Your task to perform on an android device: open chrome and create a bookmark for the current page Image 0: 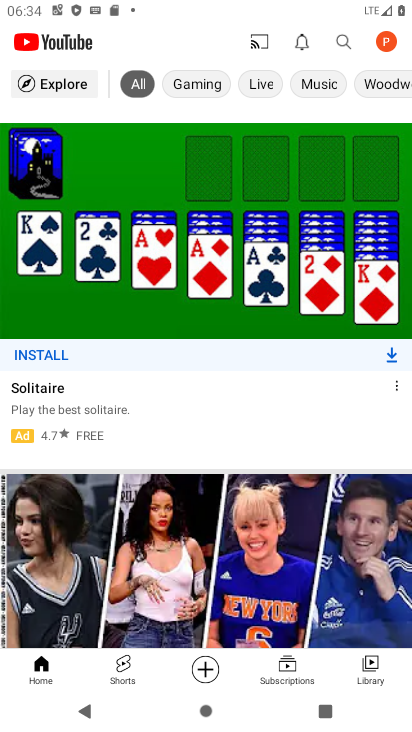
Step 0: press home button
Your task to perform on an android device: open chrome and create a bookmark for the current page Image 1: 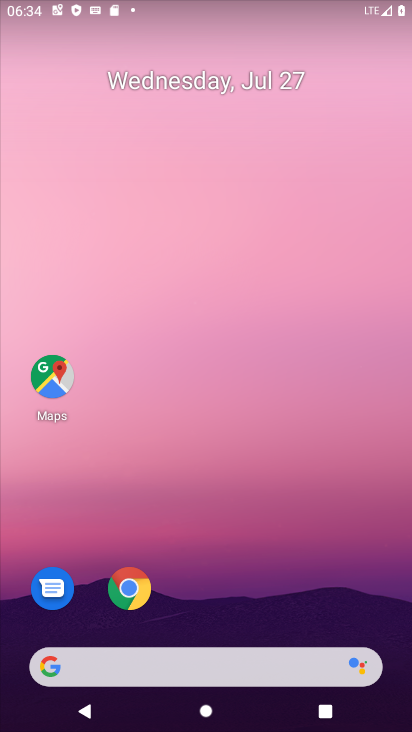
Step 1: drag from (209, 651) to (215, 2)
Your task to perform on an android device: open chrome and create a bookmark for the current page Image 2: 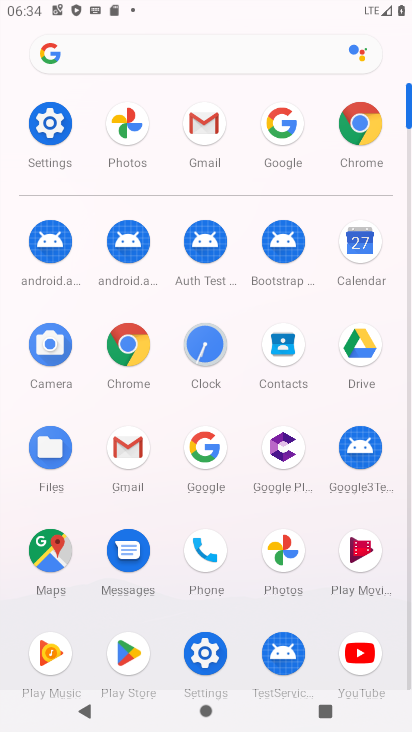
Step 2: click (133, 353)
Your task to perform on an android device: open chrome and create a bookmark for the current page Image 3: 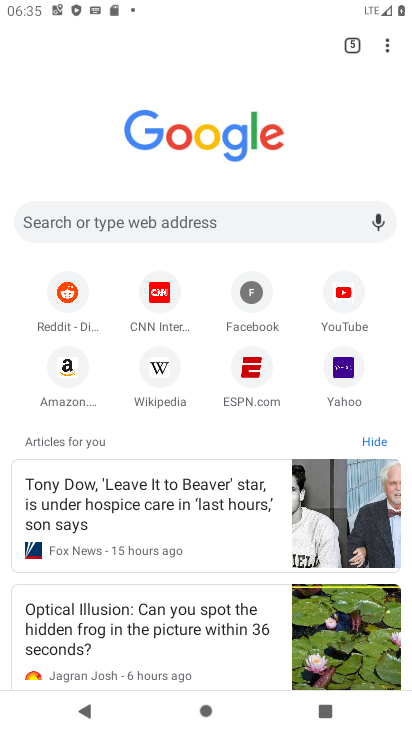
Step 3: click (387, 36)
Your task to perform on an android device: open chrome and create a bookmark for the current page Image 4: 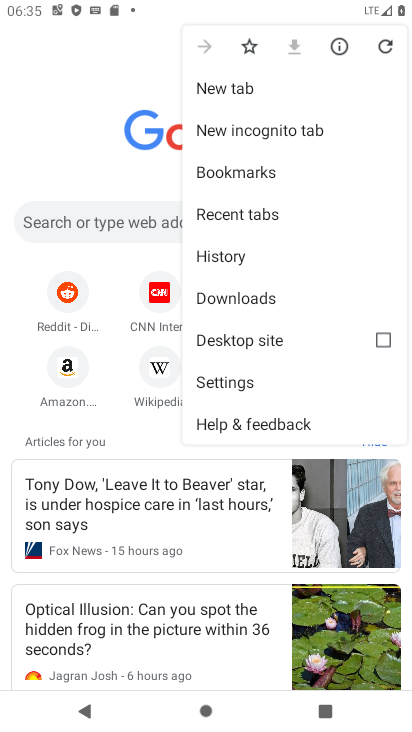
Step 4: click (93, 148)
Your task to perform on an android device: open chrome and create a bookmark for the current page Image 5: 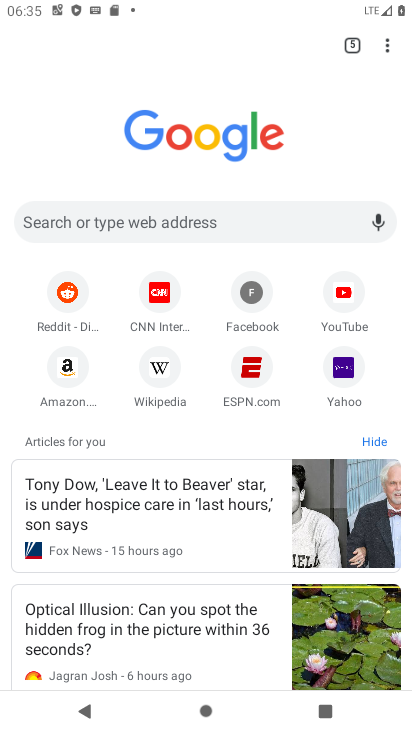
Step 5: click (383, 40)
Your task to perform on an android device: open chrome and create a bookmark for the current page Image 6: 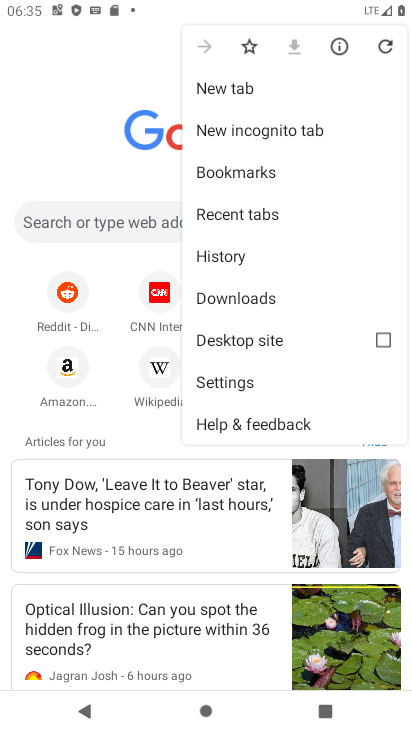
Step 6: click (248, 39)
Your task to perform on an android device: open chrome and create a bookmark for the current page Image 7: 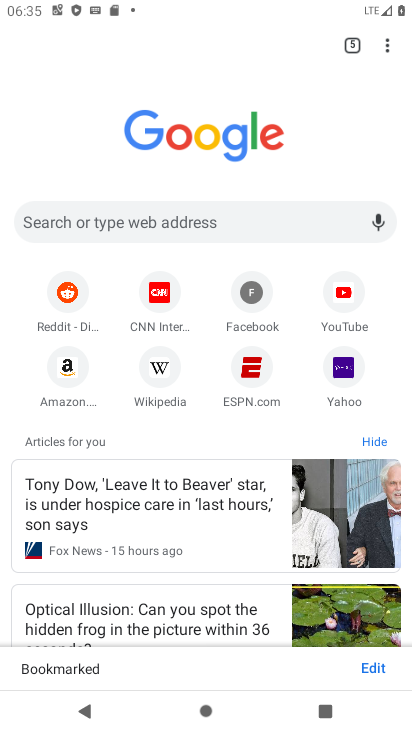
Step 7: task complete